Your task to perform on an android device: Open ESPN.com Image 0: 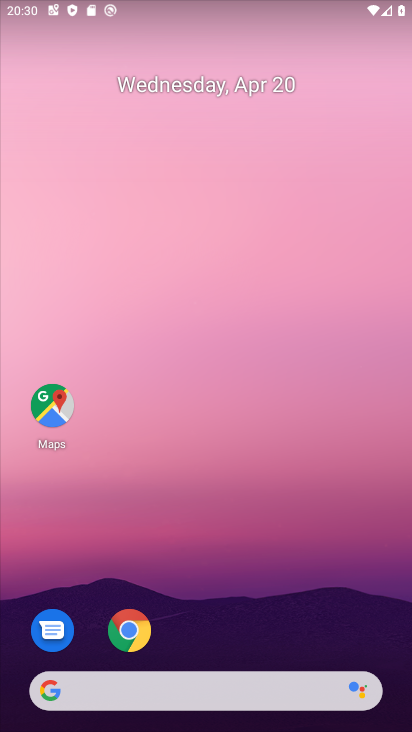
Step 0: click (133, 625)
Your task to perform on an android device: Open ESPN.com Image 1: 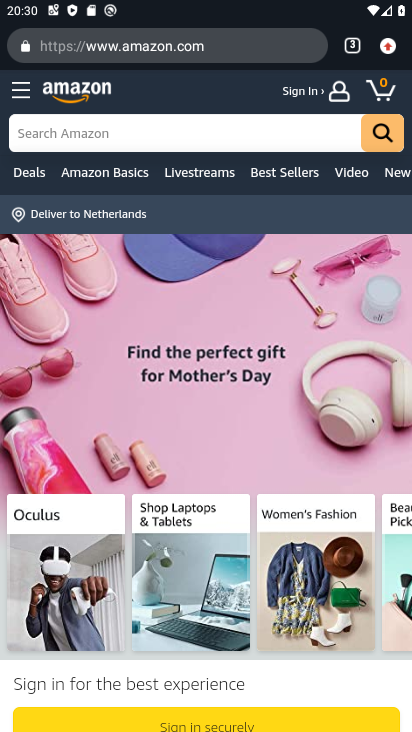
Step 1: click (353, 45)
Your task to perform on an android device: Open ESPN.com Image 2: 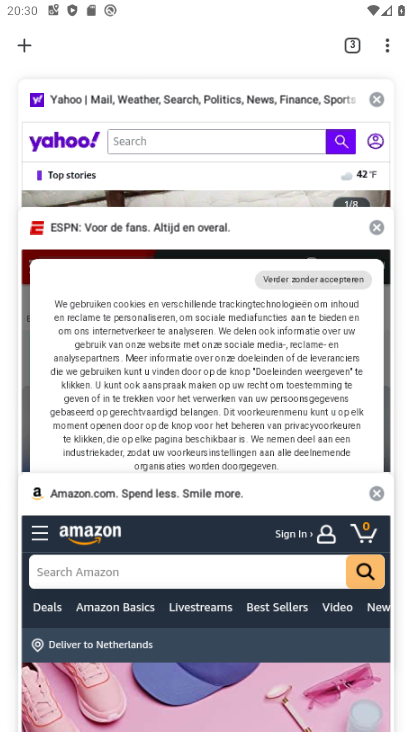
Step 2: click (135, 226)
Your task to perform on an android device: Open ESPN.com Image 3: 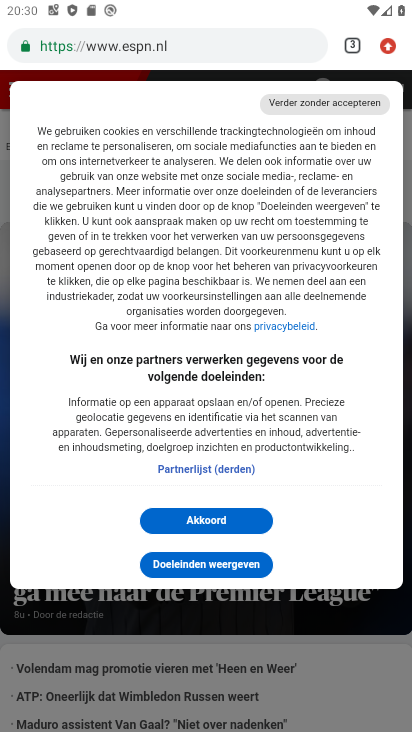
Step 3: task complete